Your task to perform on an android device: toggle data saver in the chrome app Image 0: 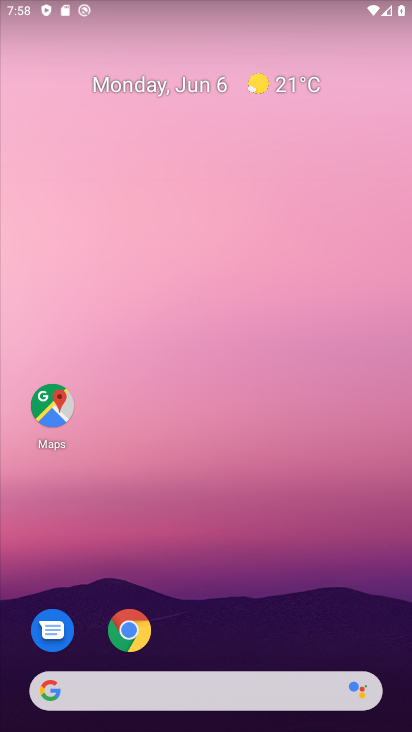
Step 0: click (133, 623)
Your task to perform on an android device: toggle data saver in the chrome app Image 1: 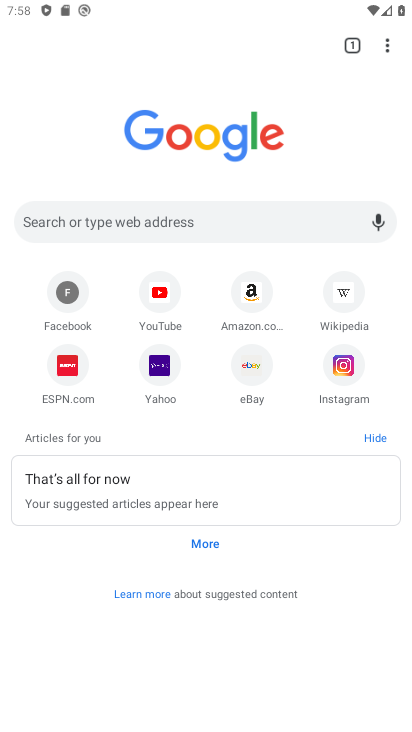
Step 1: drag from (387, 52) to (256, 369)
Your task to perform on an android device: toggle data saver in the chrome app Image 2: 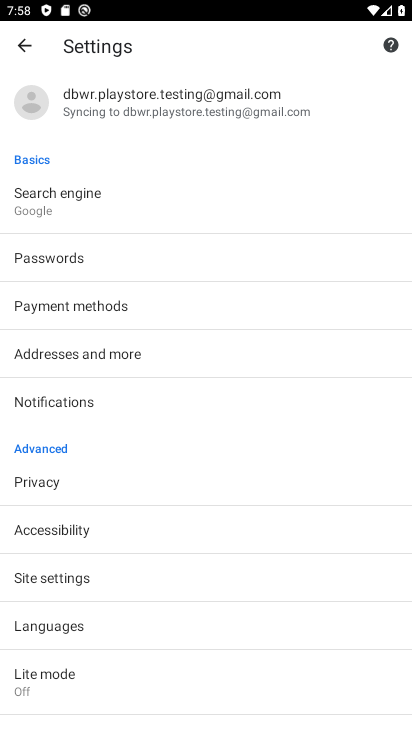
Step 2: click (119, 673)
Your task to perform on an android device: toggle data saver in the chrome app Image 3: 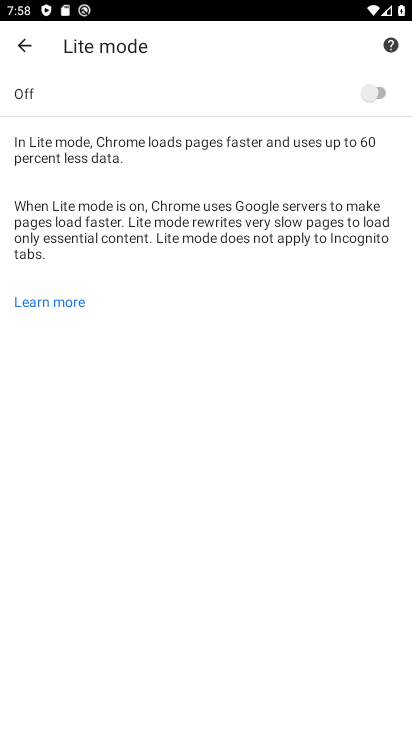
Step 3: click (393, 84)
Your task to perform on an android device: toggle data saver in the chrome app Image 4: 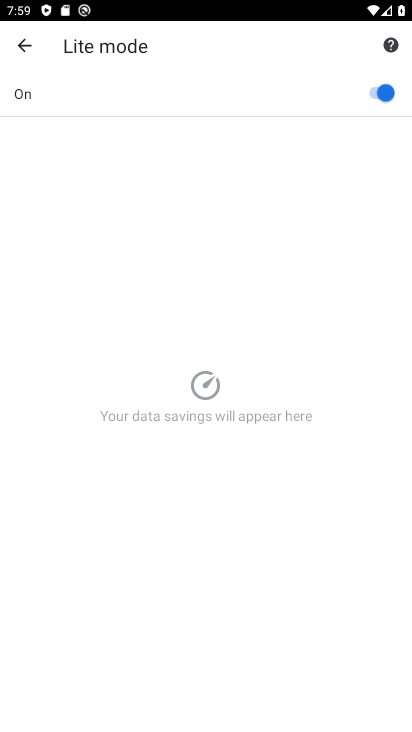
Step 4: task complete